Your task to perform on an android device: move an email to a new category in the gmail app Image 0: 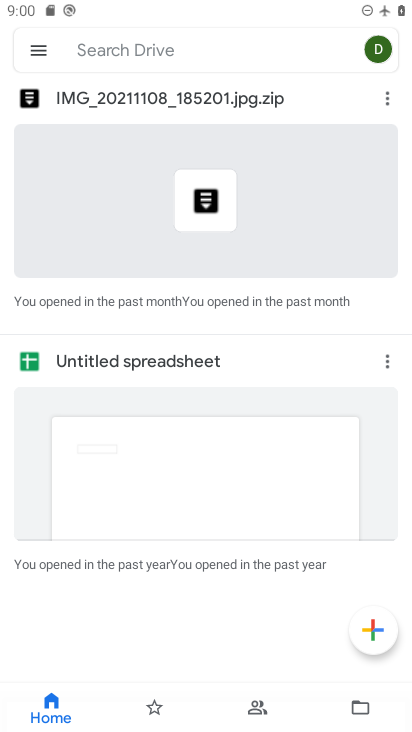
Step 0: press home button
Your task to perform on an android device: move an email to a new category in the gmail app Image 1: 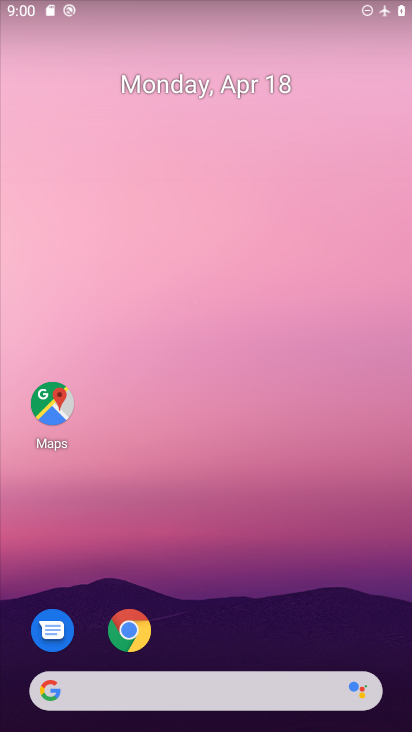
Step 1: drag from (252, 655) to (363, 0)
Your task to perform on an android device: move an email to a new category in the gmail app Image 2: 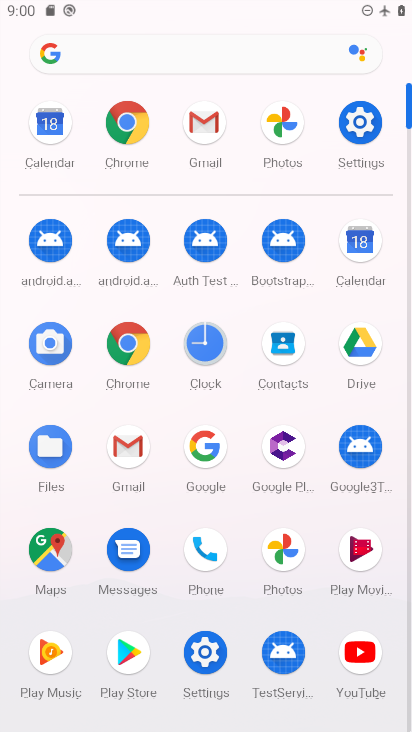
Step 2: click (132, 454)
Your task to perform on an android device: move an email to a new category in the gmail app Image 3: 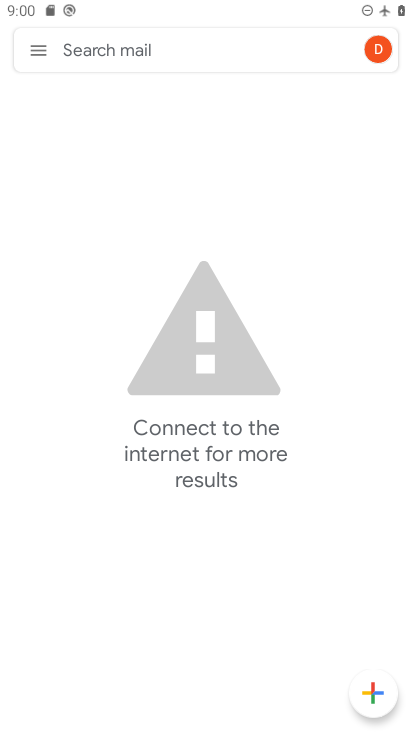
Step 3: click (41, 49)
Your task to perform on an android device: move an email to a new category in the gmail app Image 4: 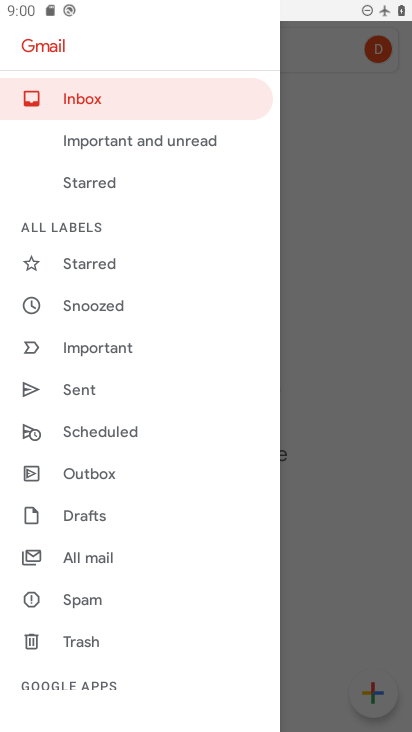
Step 4: click (93, 558)
Your task to perform on an android device: move an email to a new category in the gmail app Image 5: 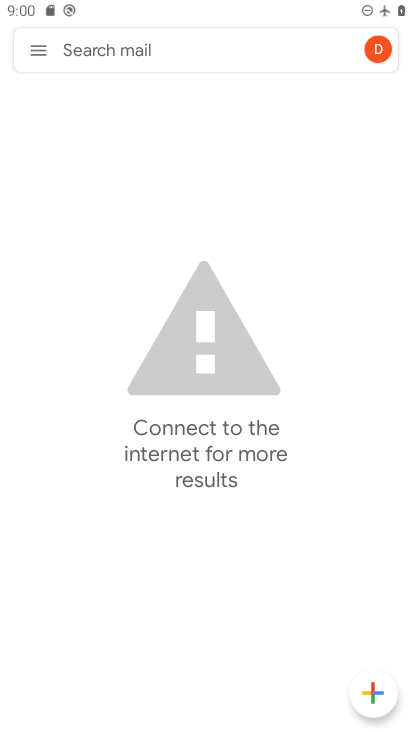
Step 5: task complete